Your task to perform on an android device: empty trash in the gmail app Image 0: 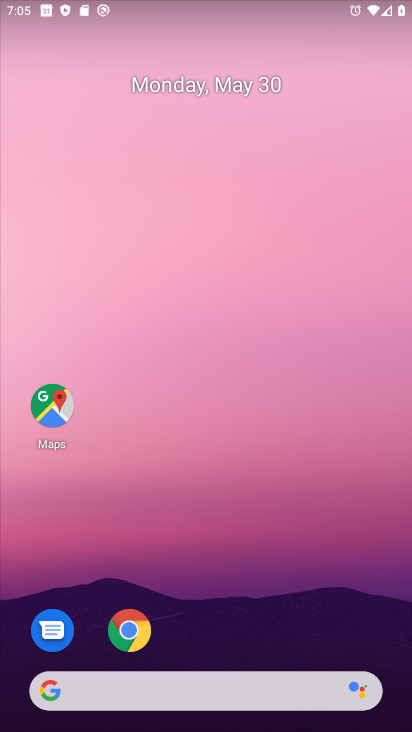
Step 0: drag from (375, 642) to (242, 7)
Your task to perform on an android device: empty trash in the gmail app Image 1: 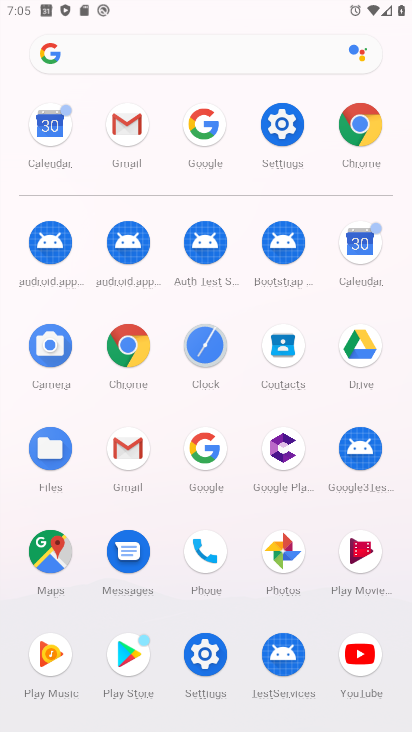
Step 1: click (113, 452)
Your task to perform on an android device: empty trash in the gmail app Image 2: 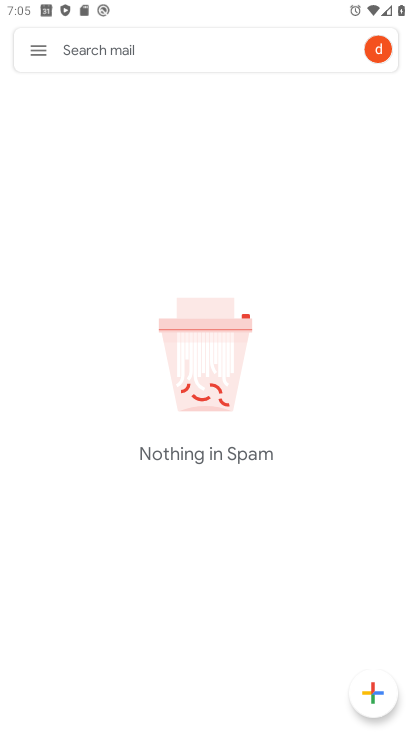
Step 2: click (41, 61)
Your task to perform on an android device: empty trash in the gmail app Image 3: 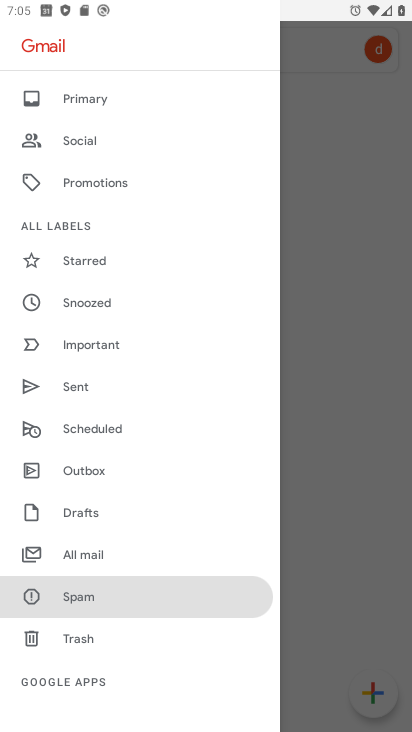
Step 3: click (77, 653)
Your task to perform on an android device: empty trash in the gmail app Image 4: 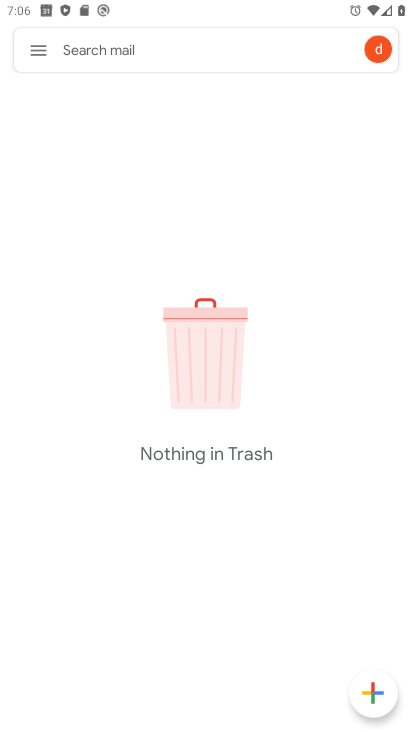
Step 4: task complete